Your task to perform on an android device: choose inbox layout in the gmail app Image 0: 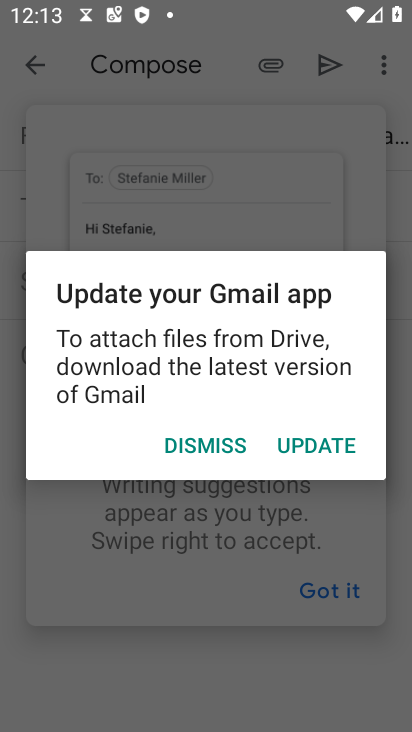
Step 0: press back button
Your task to perform on an android device: choose inbox layout in the gmail app Image 1: 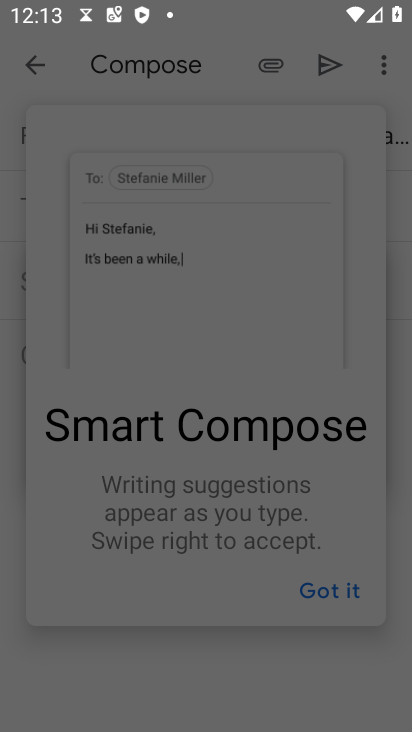
Step 1: press back button
Your task to perform on an android device: choose inbox layout in the gmail app Image 2: 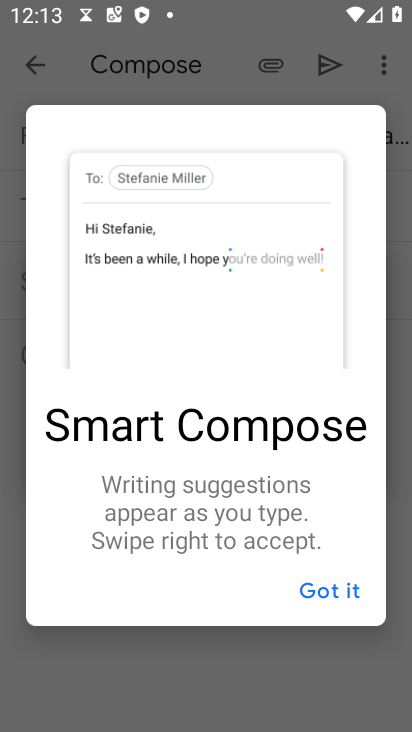
Step 2: press back button
Your task to perform on an android device: choose inbox layout in the gmail app Image 3: 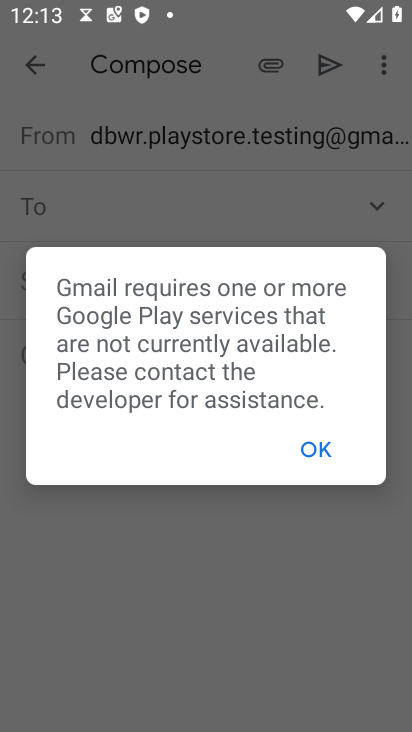
Step 3: press back button
Your task to perform on an android device: choose inbox layout in the gmail app Image 4: 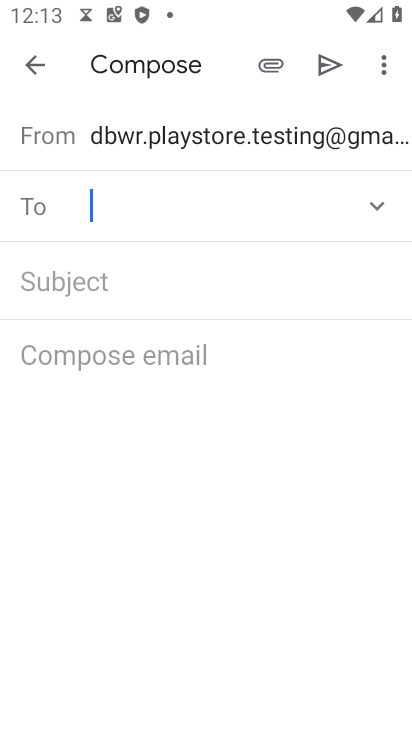
Step 4: press back button
Your task to perform on an android device: choose inbox layout in the gmail app Image 5: 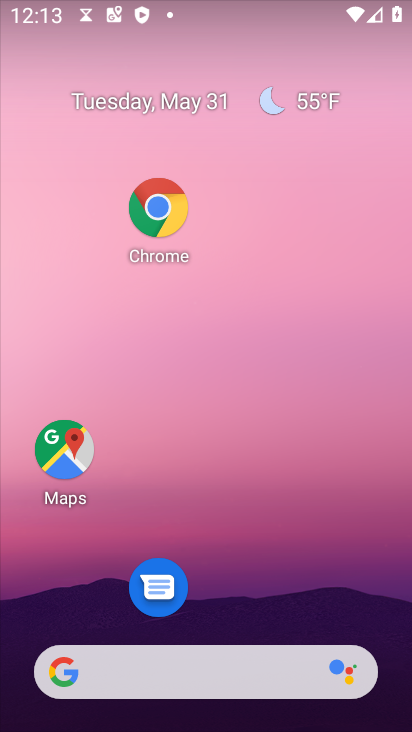
Step 5: drag from (274, 567) to (243, 108)
Your task to perform on an android device: choose inbox layout in the gmail app Image 6: 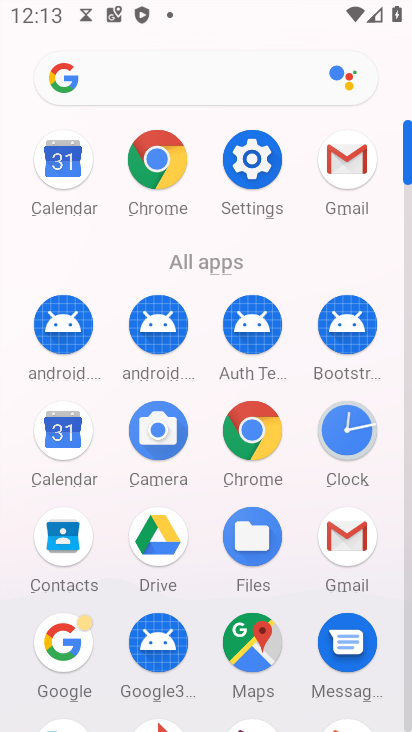
Step 6: click (350, 170)
Your task to perform on an android device: choose inbox layout in the gmail app Image 7: 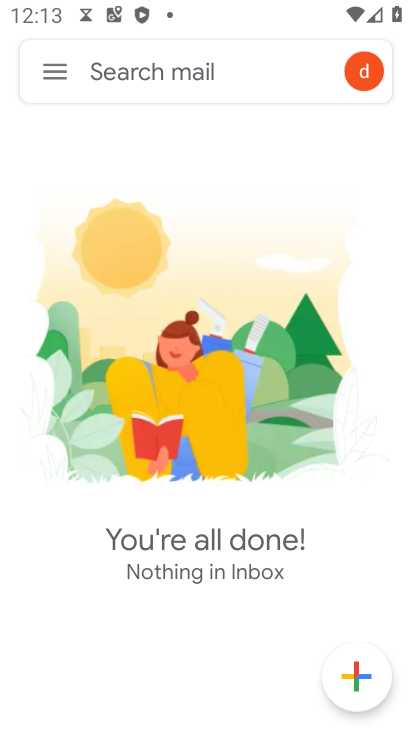
Step 7: click (58, 68)
Your task to perform on an android device: choose inbox layout in the gmail app Image 8: 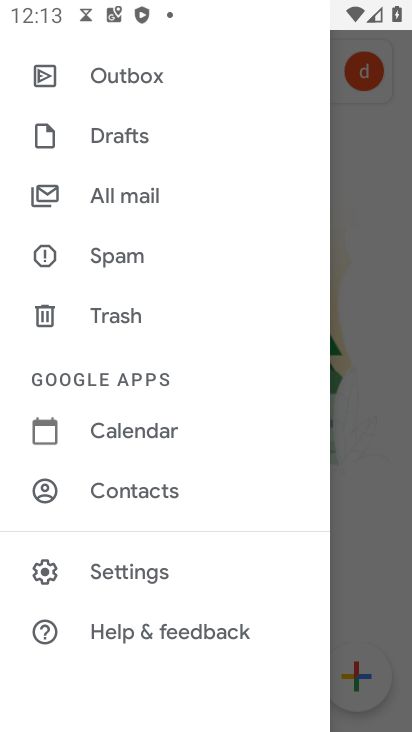
Step 8: task complete